Your task to perform on an android device: See recent photos Image 0: 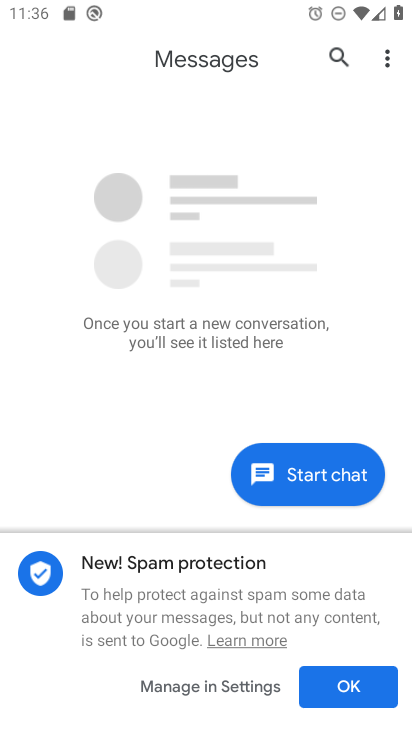
Step 0: press home button
Your task to perform on an android device: See recent photos Image 1: 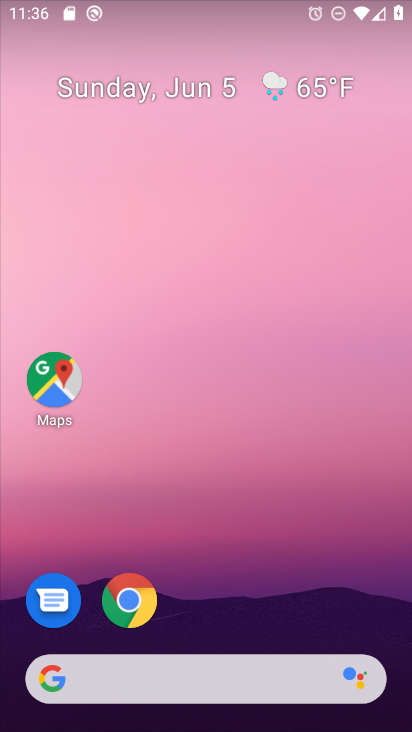
Step 1: drag from (362, 624) to (250, 45)
Your task to perform on an android device: See recent photos Image 2: 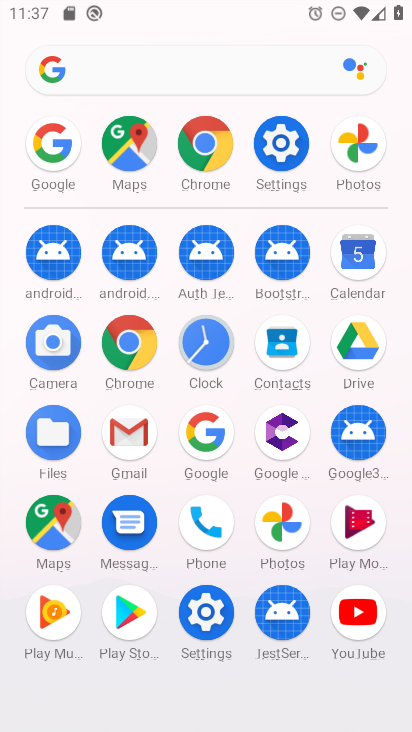
Step 2: click (296, 528)
Your task to perform on an android device: See recent photos Image 3: 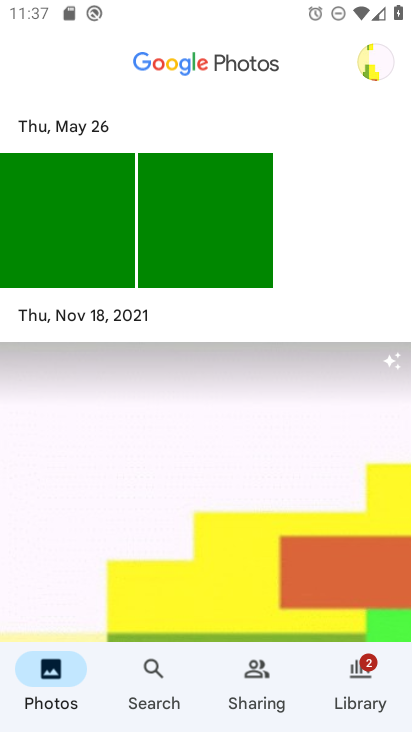
Step 3: click (79, 265)
Your task to perform on an android device: See recent photos Image 4: 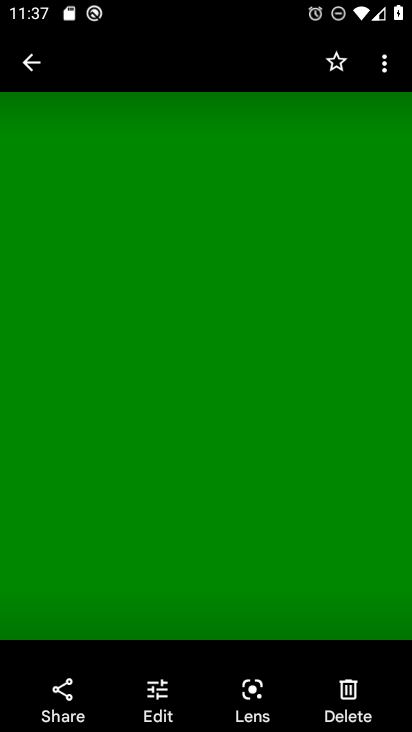
Step 4: task complete